Your task to perform on an android device: change notification settings in the gmail app Image 0: 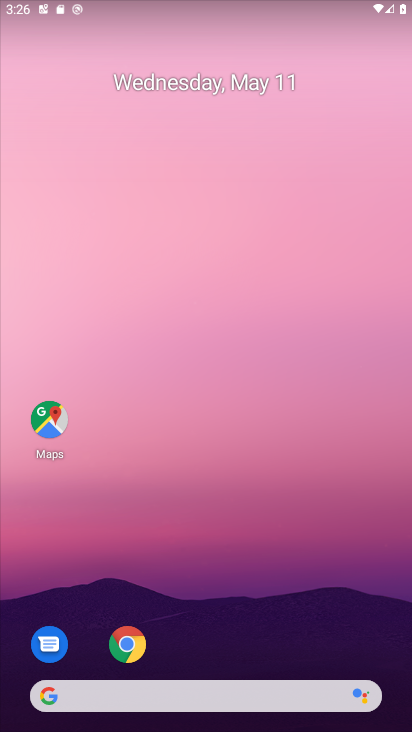
Step 0: drag from (182, 668) to (154, 25)
Your task to perform on an android device: change notification settings in the gmail app Image 1: 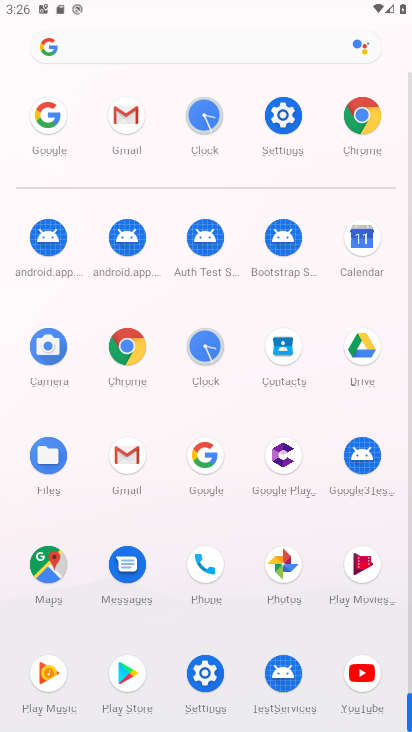
Step 1: click (123, 464)
Your task to perform on an android device: change notification settings in the gmail app Image 2: 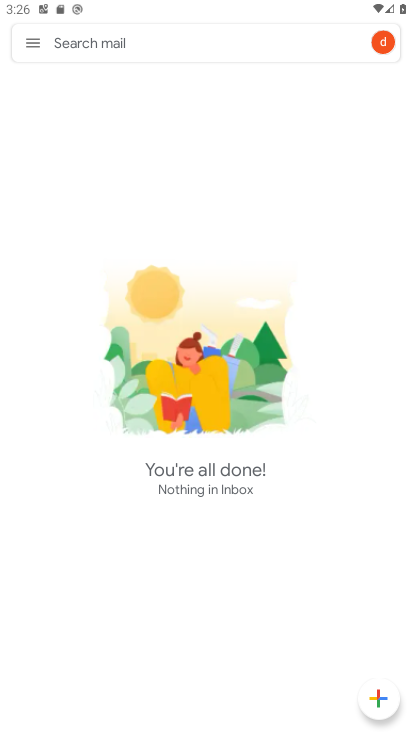
Step 2: click (27, 46)
Your task to perform on an android device: change notification settings in the gmail app Image 3: 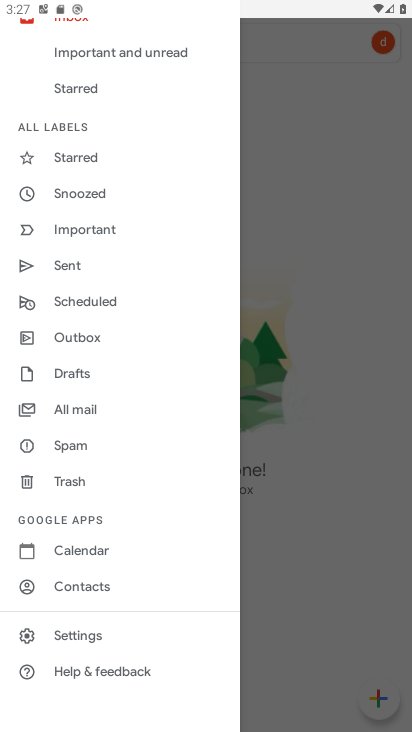
Step 3: click (70, 629)
Your task to perform on an android device: change notification settings in the gmail app Image 4: 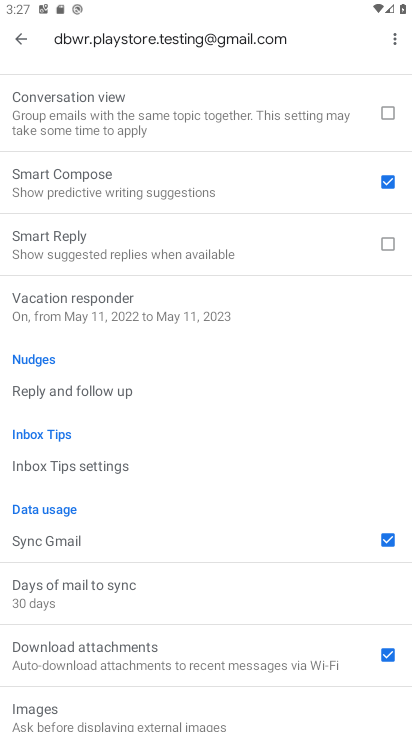
Step 4: click (18, 37)
Your task to perform on an android device: change notification settings in the gmail app Image 5: 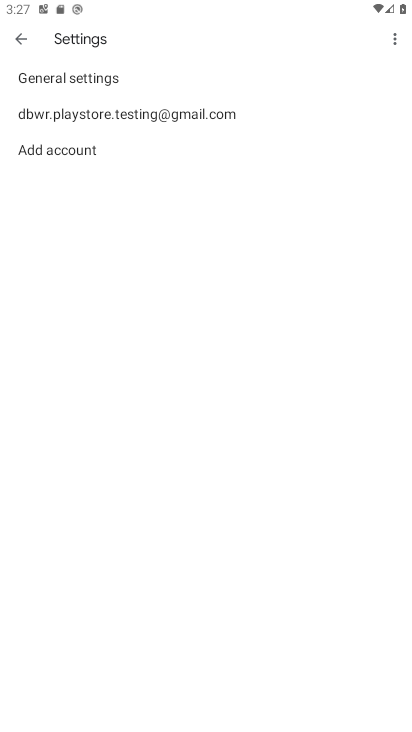
Step 5: click (91, 76)
Your task to perform on an android device: change notification settings in the gmail app Image 6: 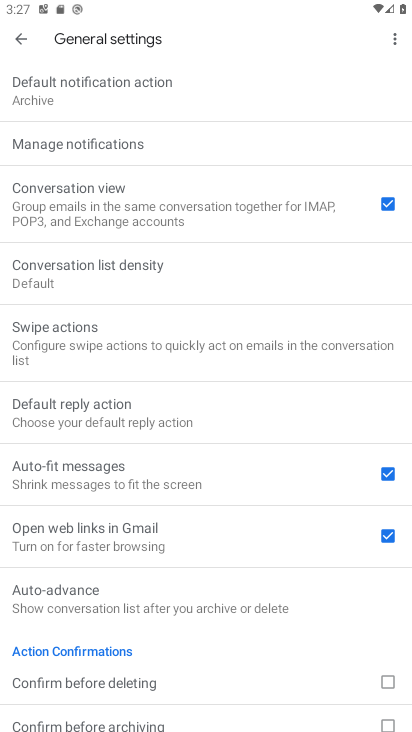
Step 6: click (233, 144)
Your task to perform on an android device: change notification settings in the gmail app Image 7: 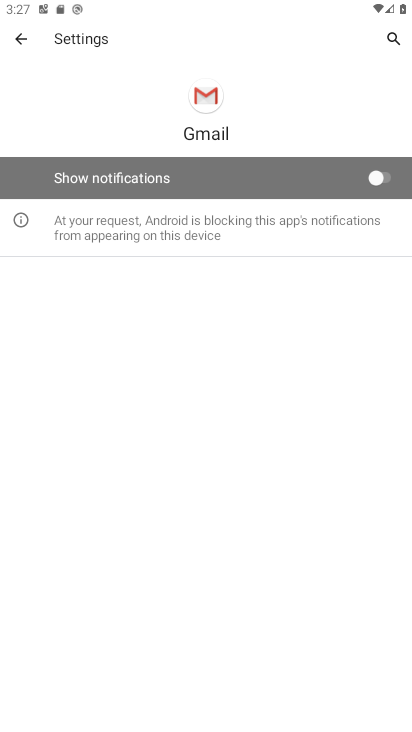
Step 7: click (372, 171)
Your task to perform on an android device: change notification settings in the gmail app Image 8: 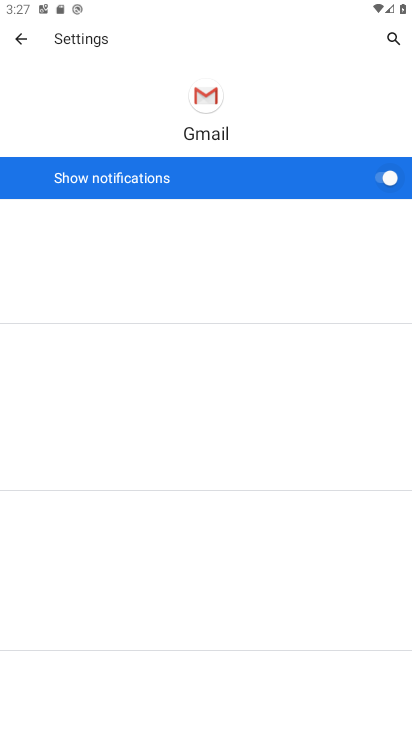
Step 8: task complete